Your task to perform on an android device: move a message to another label in the gmail app Image 0: 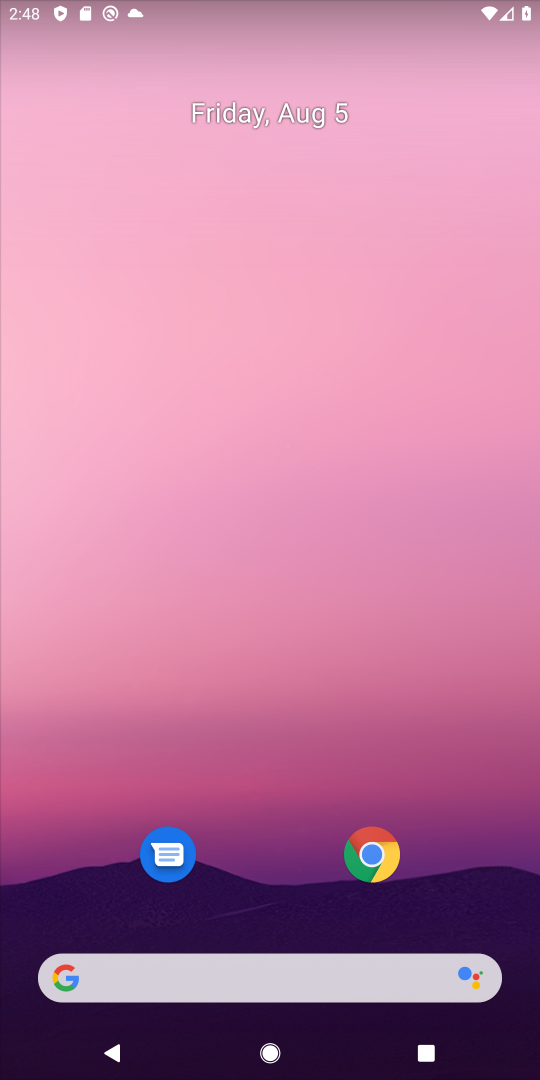
Step 0: click (438, 164)
Your task to perform on an android device: move a message to another label in the gmail app Image 1: 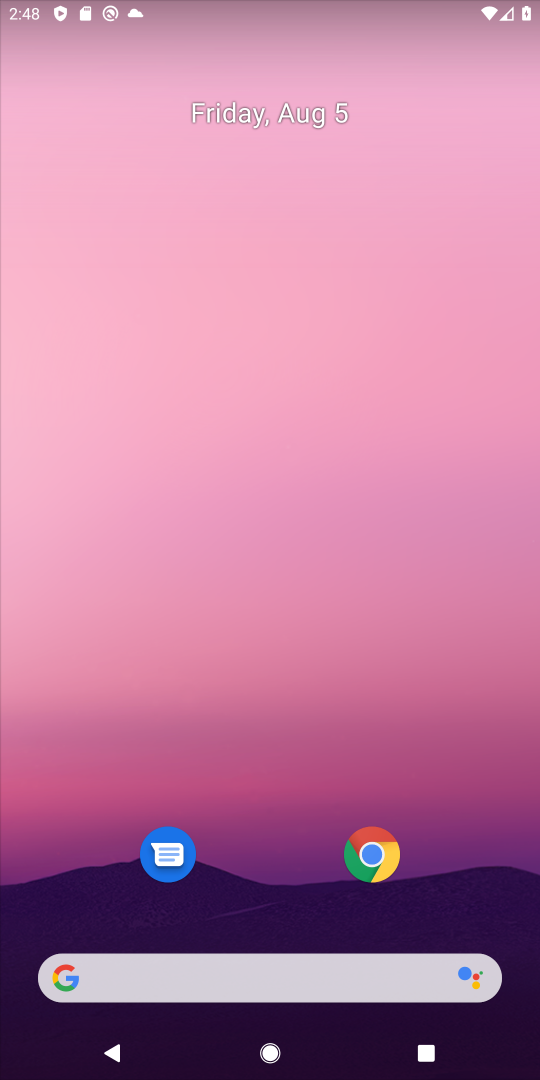
Step 1: drag from (205, 762) to (501, 338)
Your task to perform on an android device: move a message to another label in the gmail app Image 2: 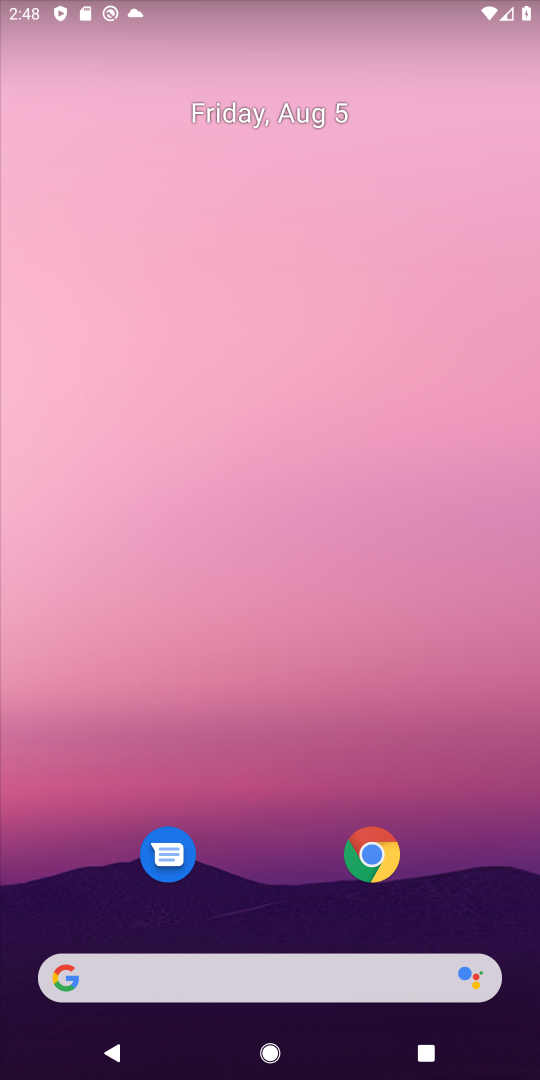
Step 2: drag from (52, 589) to (164, 334)
Your task to perform on an android device: move a message to another label in the gmail app Image 3: 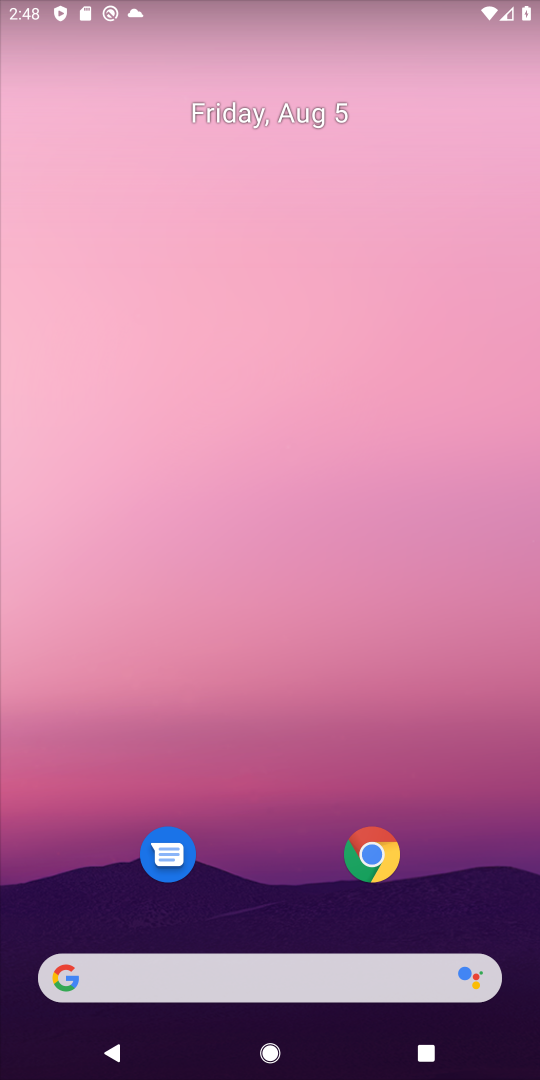
Step 3: drag from (59, 1023) to (281, 151)
Your task to perform on an android device: move a message to another label in the gmail app Image 4: 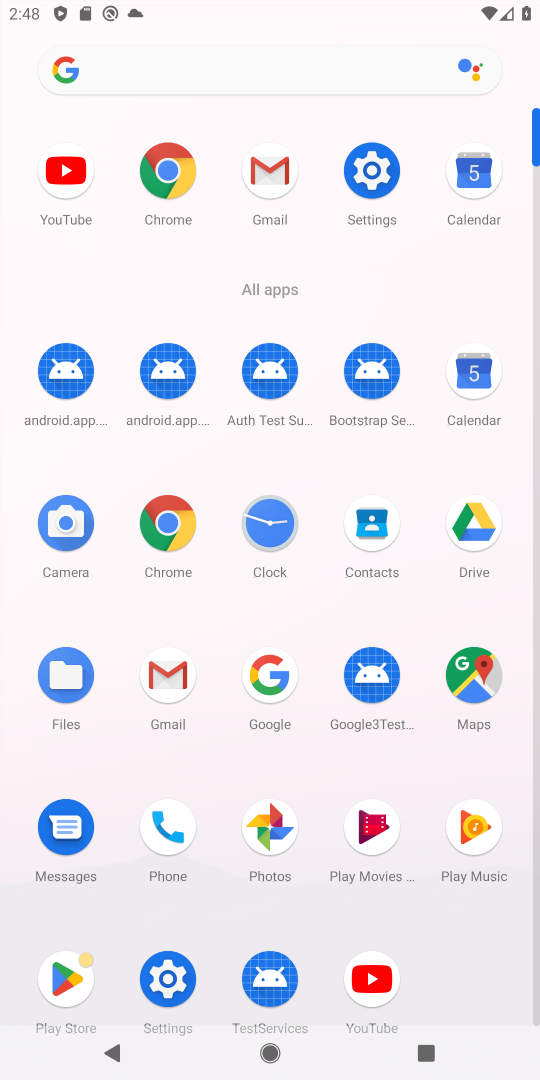
Step 4: click (172, 690)
Your task to perform on an android device: move a message to another label in the gmail app Image 5: 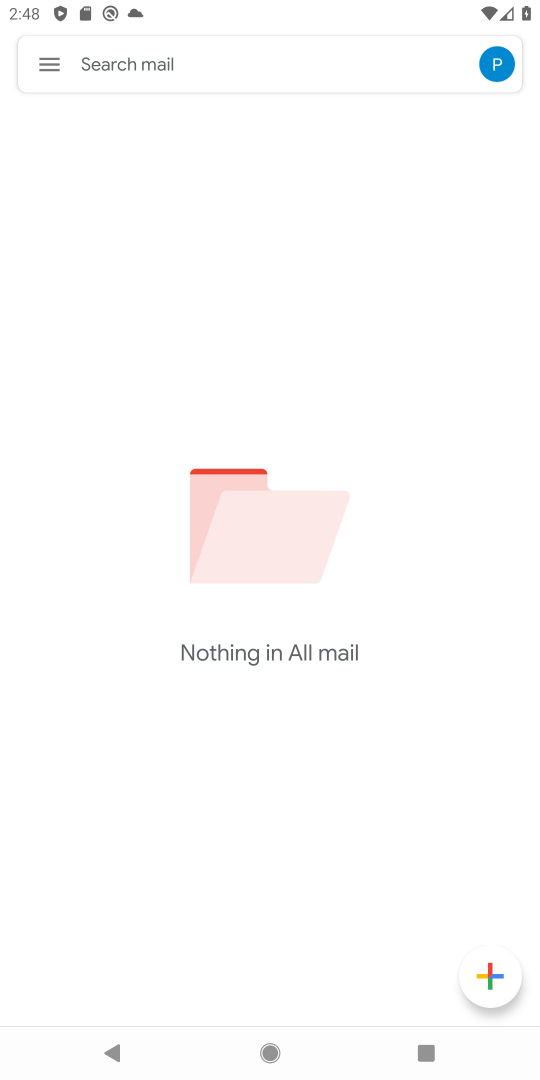
Step 5: click (51, 84)
Your task to perform on an android device: move a message to another label in the gmail app Image 6: 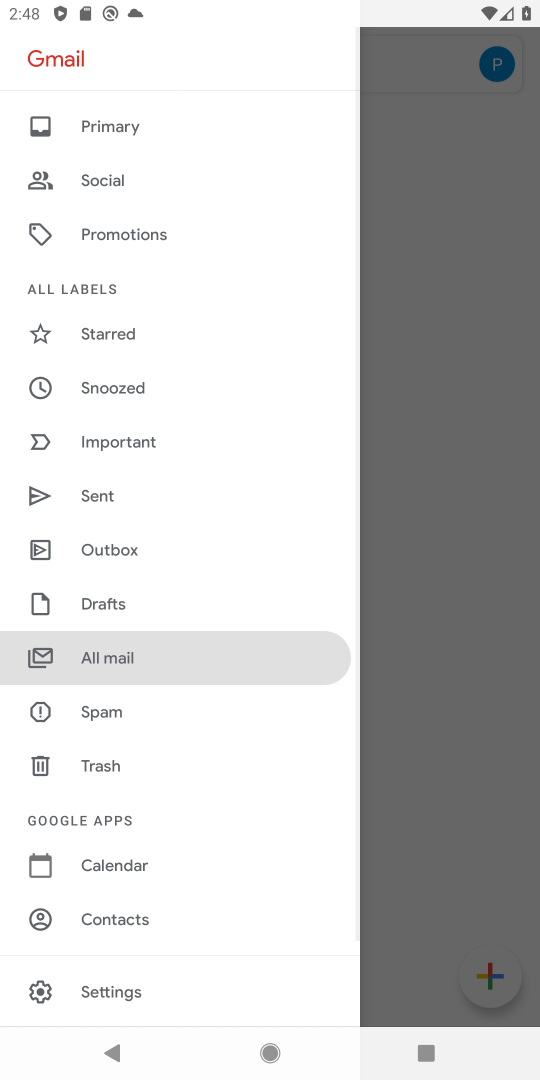
Step 6: click (51, 84)
Your task to perform on an android device: move a message to another label in the gmail app Image 7: 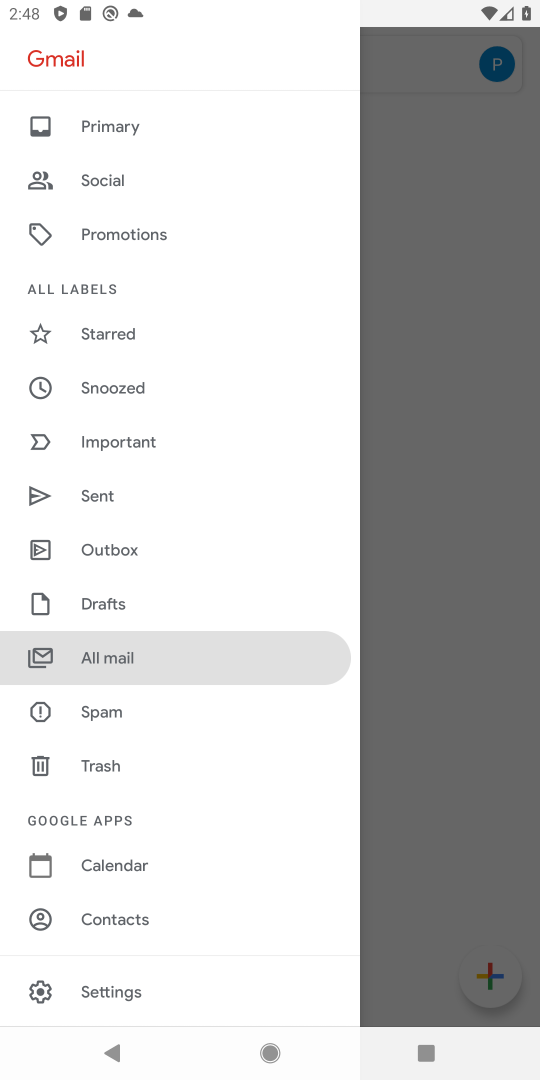
Step 7: click (119, 147)
Your task to perform on an android device: move a message to another label in the gmail app Image 8: 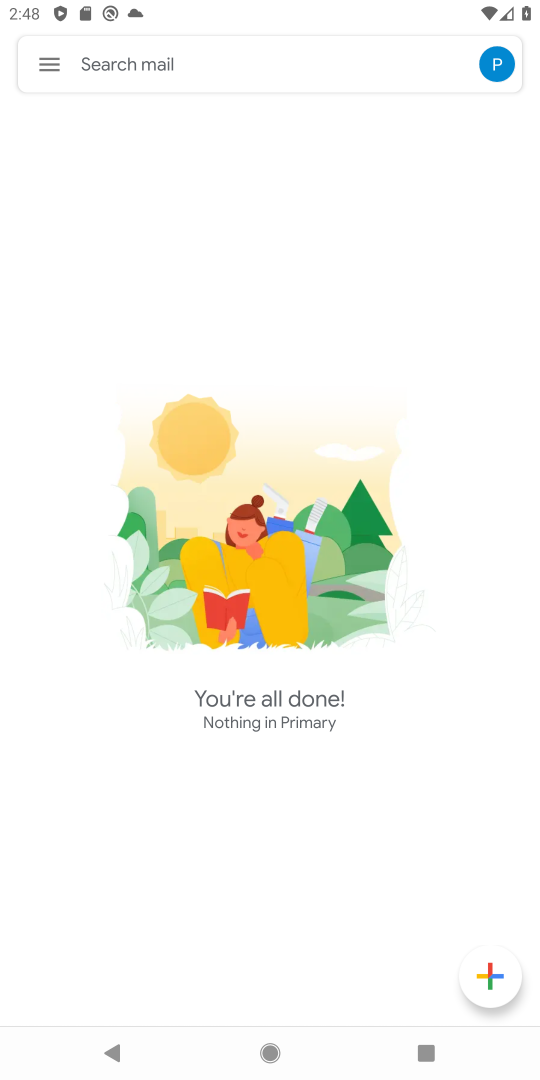
Step 8: task complete